Your task to perform on an android device: see tabs open on other devices in the chrome app Image 0: 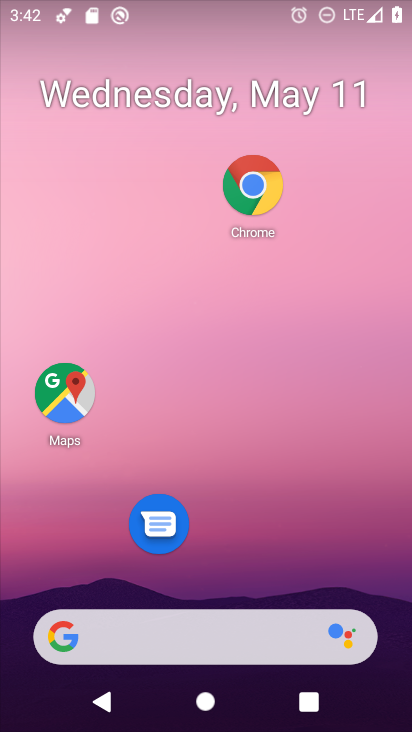
Step 0: click (249, 191)
Your task to perform on an android device: see tabs open on other devices in the chrome app Image 1: 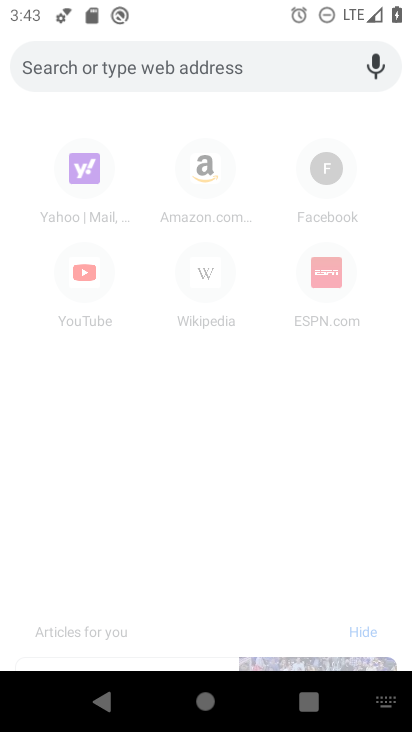
Step 1: press back button
Your task to perform on an android device: see tabs open on other devices in the chrome app Image 2: 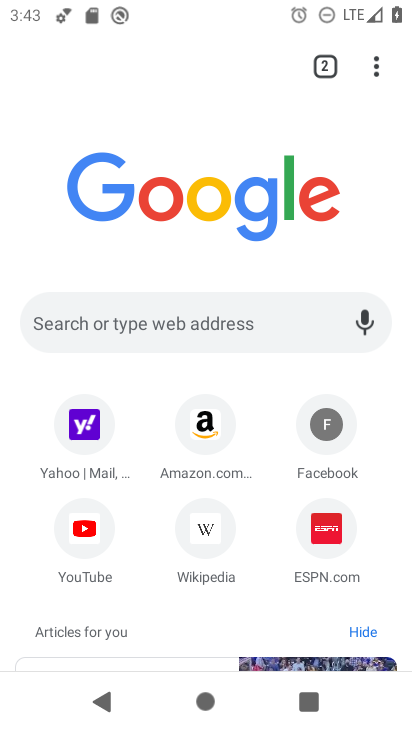
Step 2: click (374, 69)
Your task to perform on an android device: see tabs open on other devices in the chrome app Image 3: 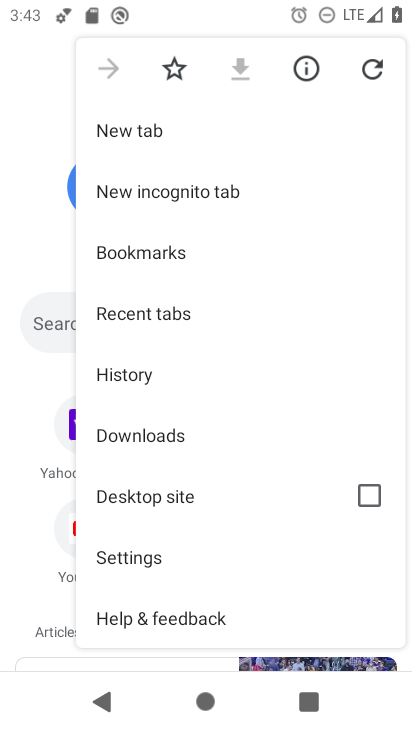
Step 3: click (187, 303)
Your task to perform on an android device: see tabs open on other devices in the chrome app Image 4: 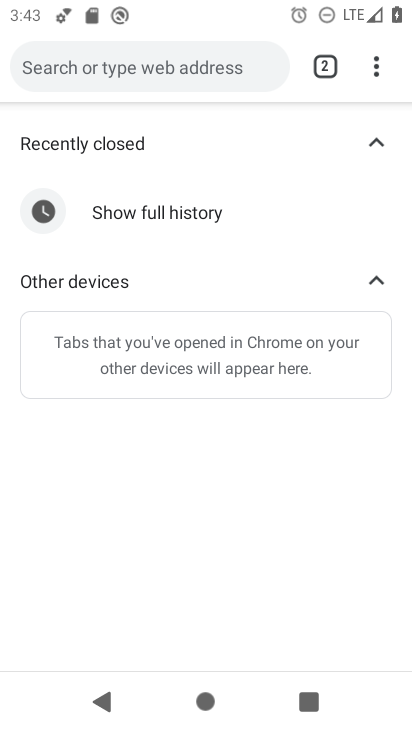
Step 4: task complete